Your task to perform on an android device: open chrome and create a bookmark for the current page Image 0: 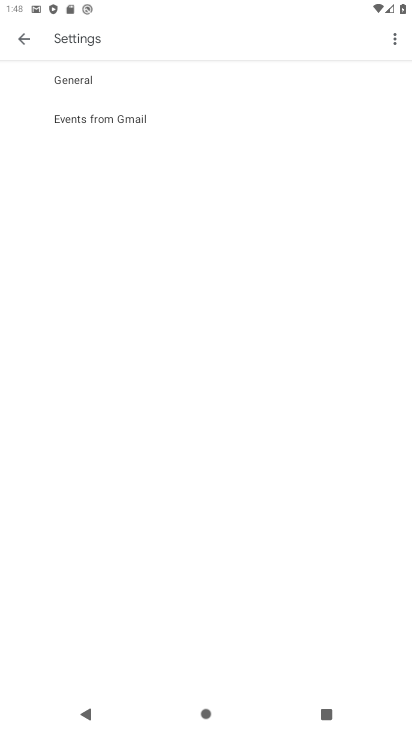
Step 0: press home button
Your task to perform on an android device: open chrome and create a bookmark for the current page Image 1: 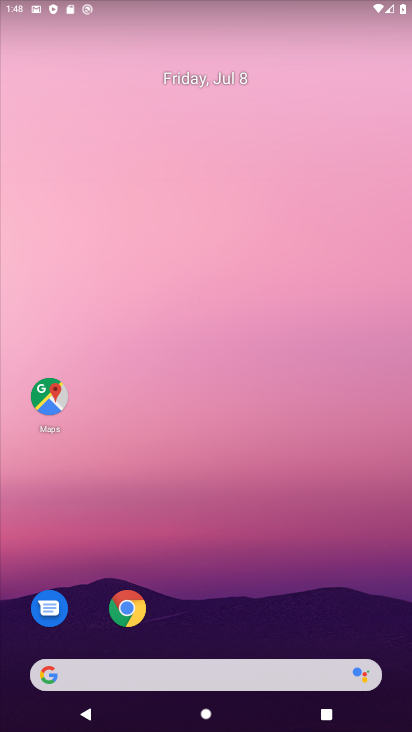
Step 1: click (108, 610)
Your task to perform on an android device: open chrome and create a bookmark for the current page Image 2: 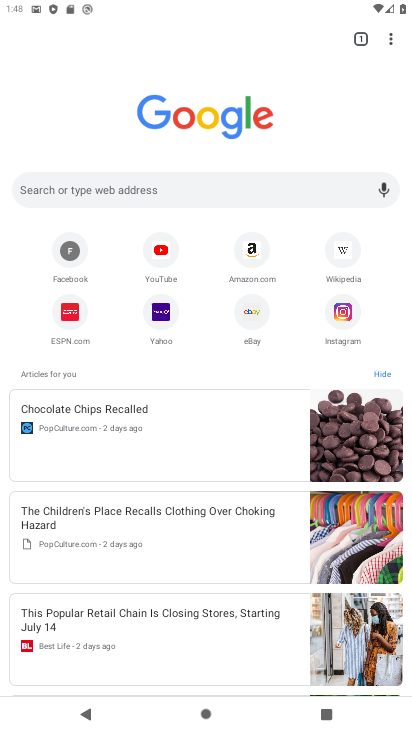
Step 2: click (395, 40)
Your task to perform on an android device: open chrome and create a bookmark for the current page Image 3: 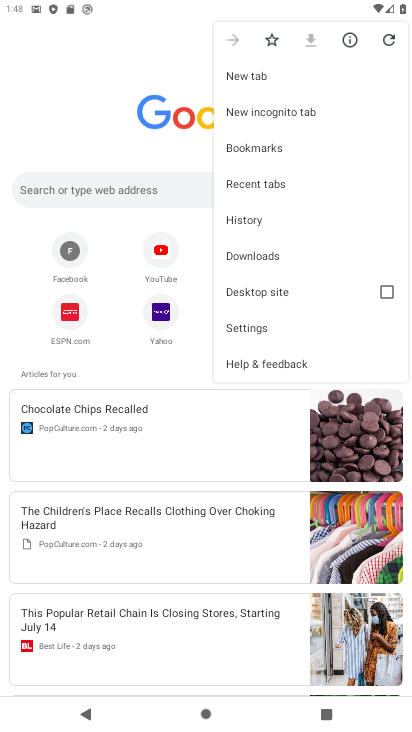
Step 3: click (273, 38)
Your task to perform on an android device: open chrome and create a bookmark for the current page Image 4: 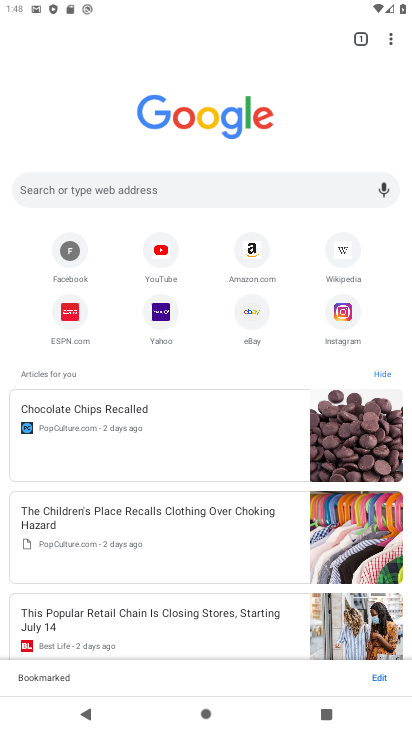
Step 4: task complete